Your task to perform on an android device: create a new album in the google photos Image 0: 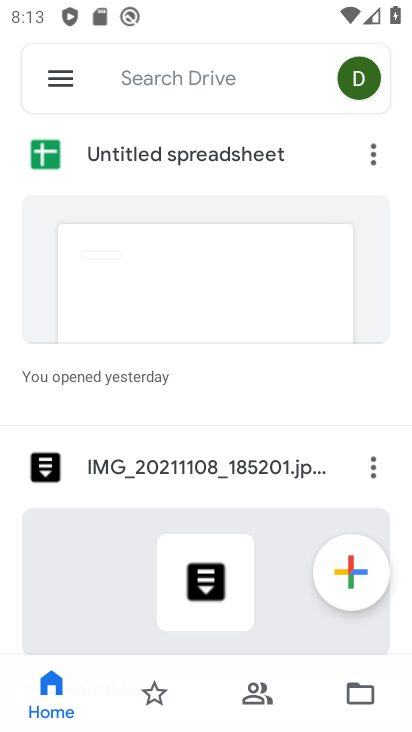
Step 0: press home button
Your task to perform on an android device: create a new album in the google photos Image 1: 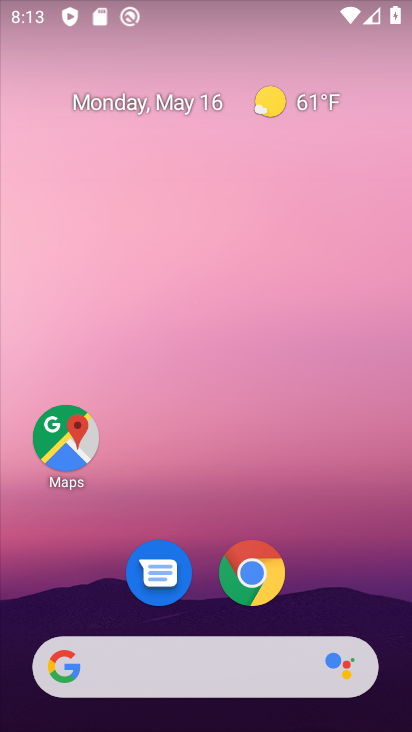
Step 1: drag from (189, 724) to (151, 286)
Your task to perform on an android device: create a new album in the google photos Image 2: 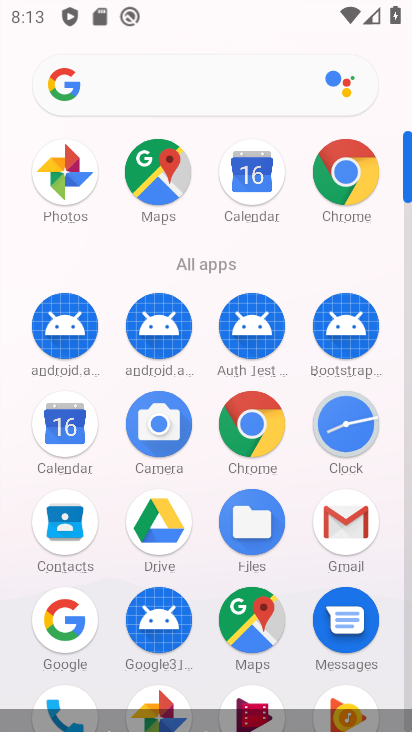
Step 2: click (66, 174)
Your task to perform on an android device: create a new album in the google photos Image 3: 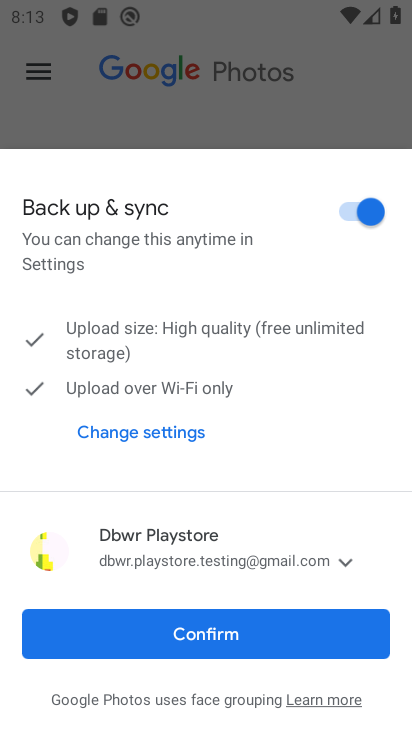
Step 3: click (179, 631)
Your task to perform on an android device: create a new album in the google photos Image 4: 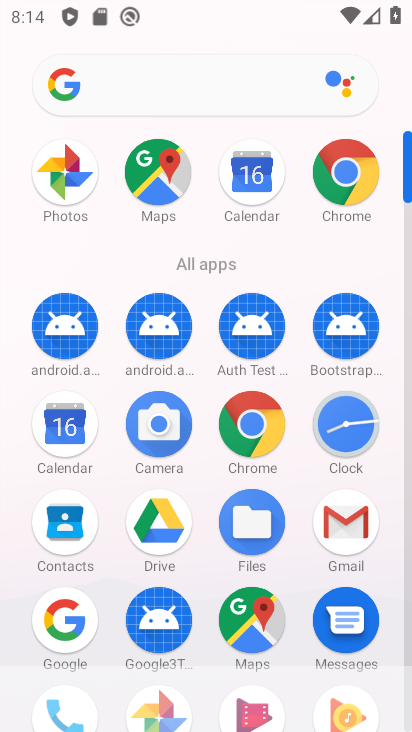
Step 4: click (67, 174)
Your task to perform on an android device: create a new album in the google photos Image 5: 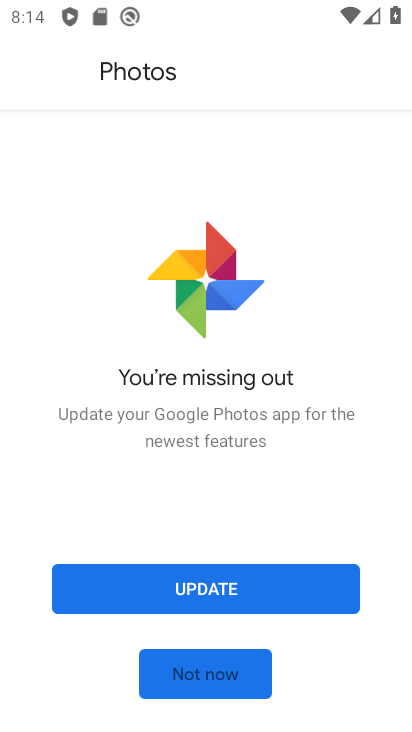
Step 5: task complete